Your task to perform on an android device: Clear the cart on newegg.com. Add "sony triple a" to the cart on newegg.com, then select checkout. Image 0: 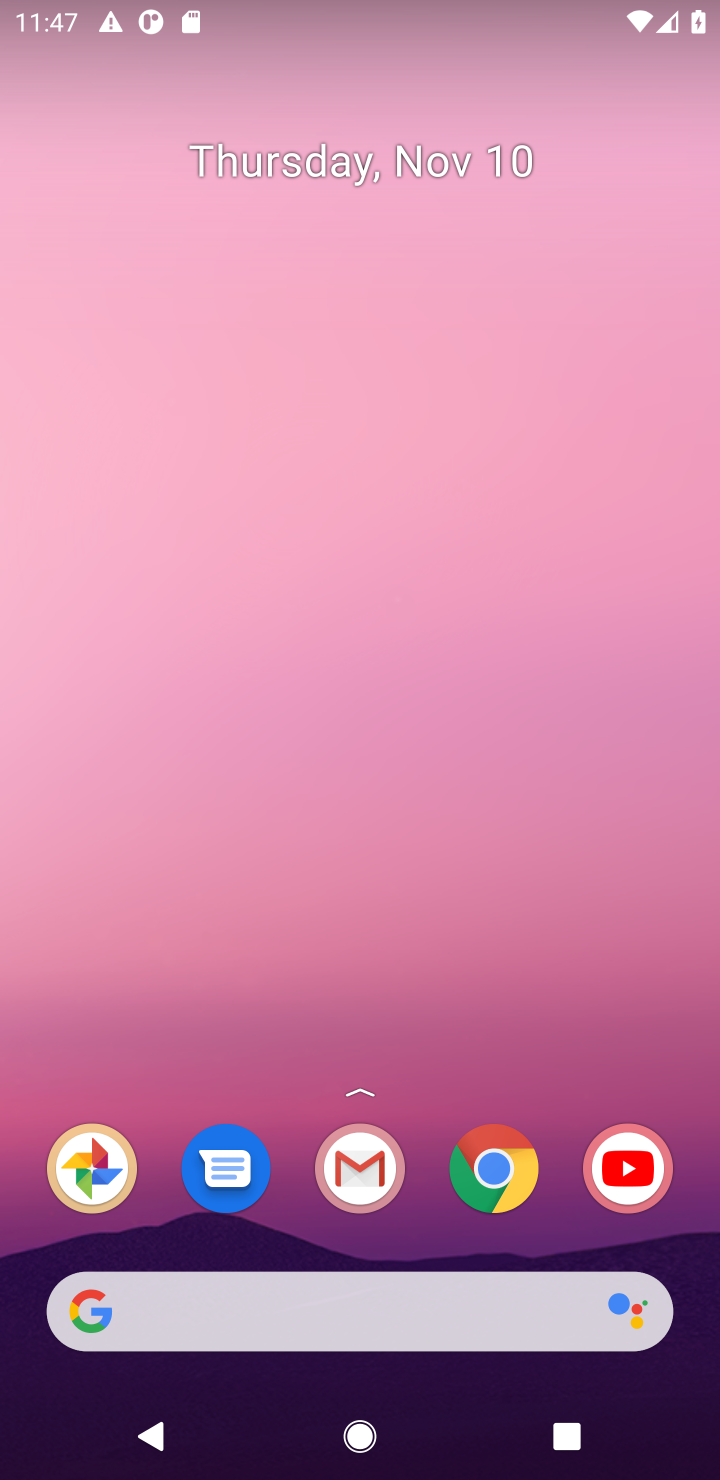
Step 0: click (495, 1162)
Your task to perform on an android device: Clear the cart on newegg.com. Add "sony triple a" to the cart on newegg.com, then select checkout. Image 1: 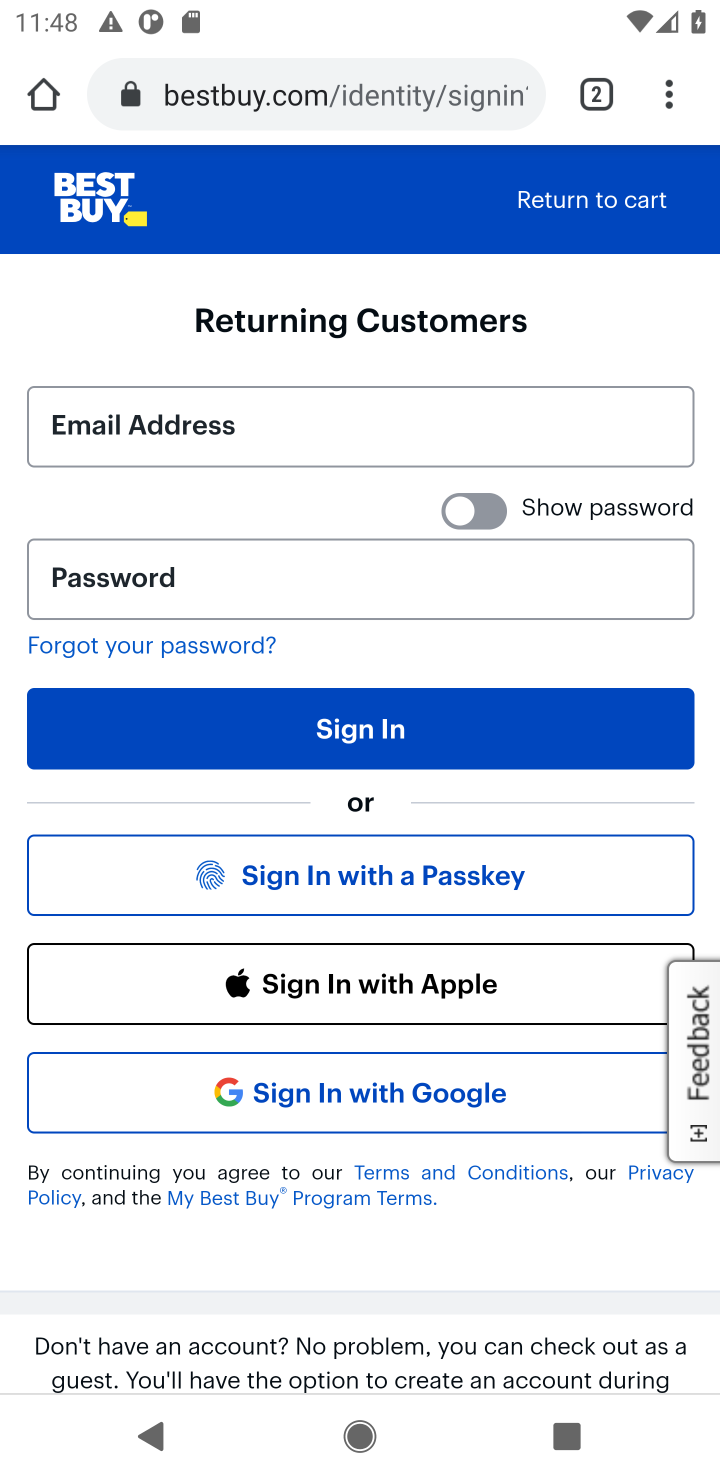
Step 1: click (349, 96)
Your task to perform on an android device: Clear the cart on newegg.com. Add "sony triple a" to the cart on newegg.com, then select checkout. Image 2: 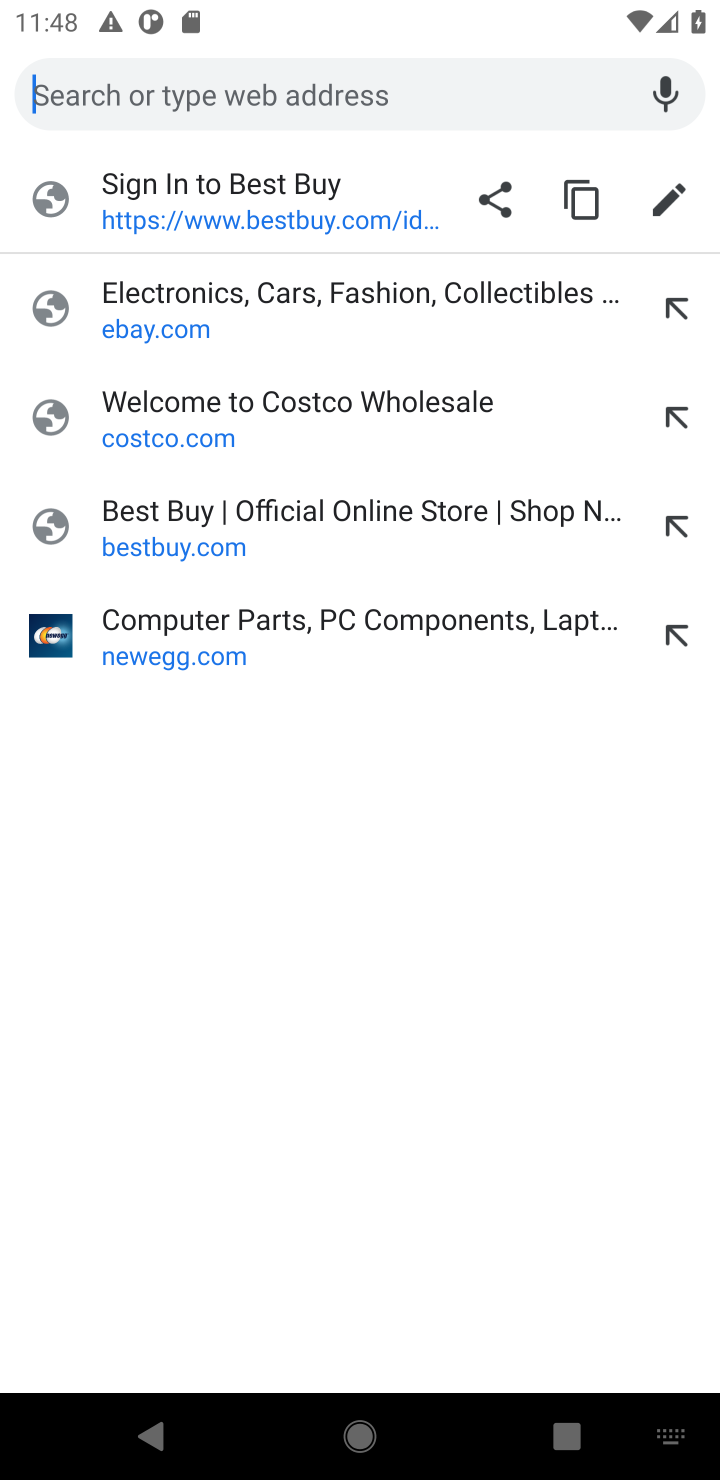
Step 2: click (140, 649)
Your task to perform on an android device: Clear the cart on newegg.com. Add "sony triple a" to the cart on newegg.com, then select checkout. Image 3: 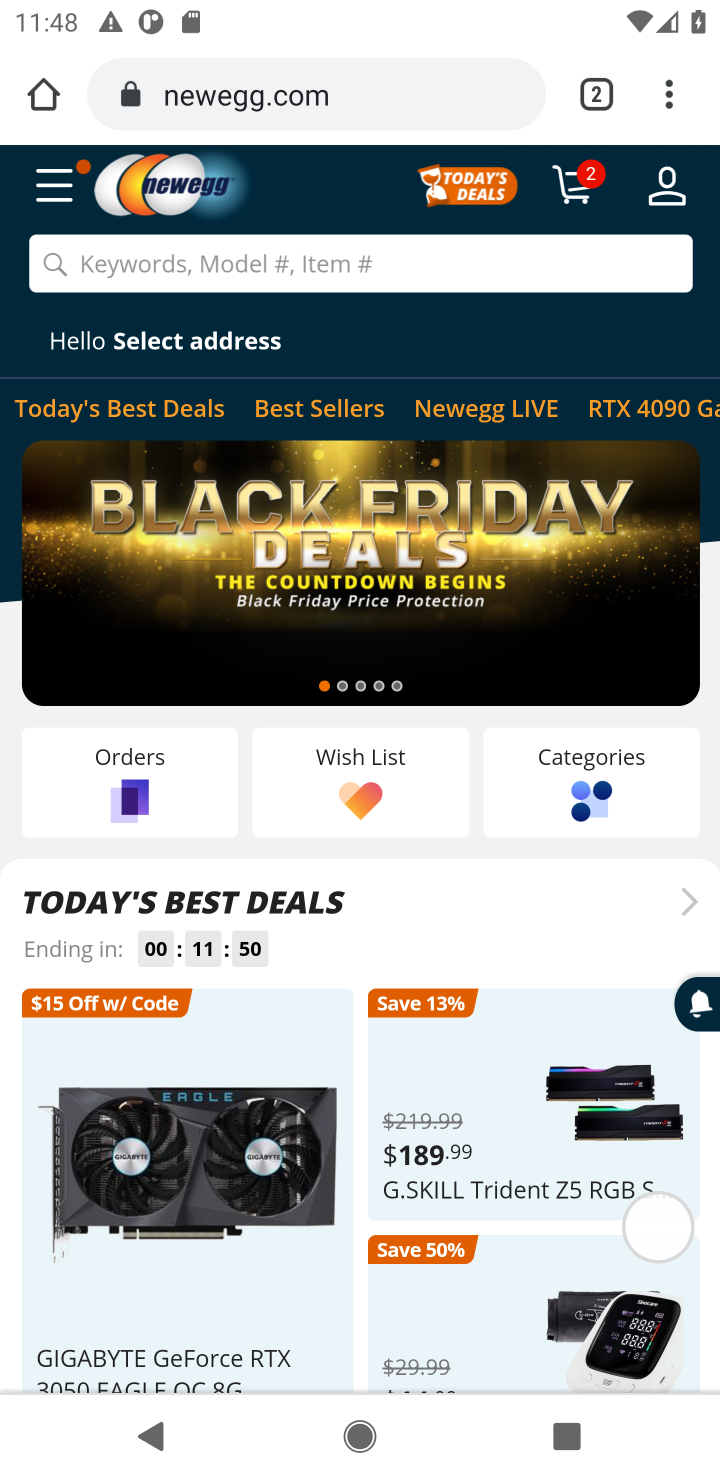
Step 3: click (574, 204)
Your task to perform on an android device: Clear the cart on newegg.com. Add "sony triple a" to the cart on newegg.com, then select checkout. Image 4: 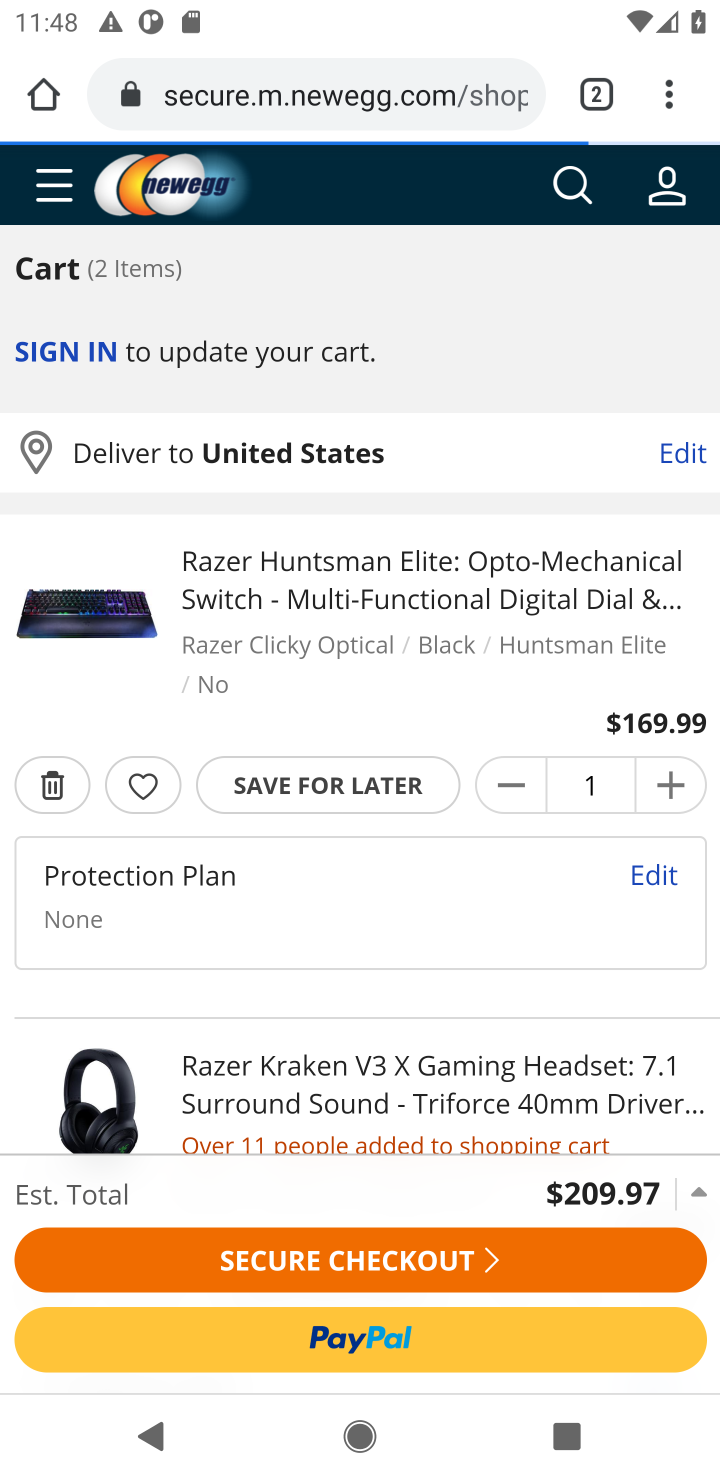
Step 4: click (50, 773)
Your task to perform on an android device: Clear the cart on newegg.com. Add "sony triple a" to the cart on newegg.com, then select checkout. Image 5: 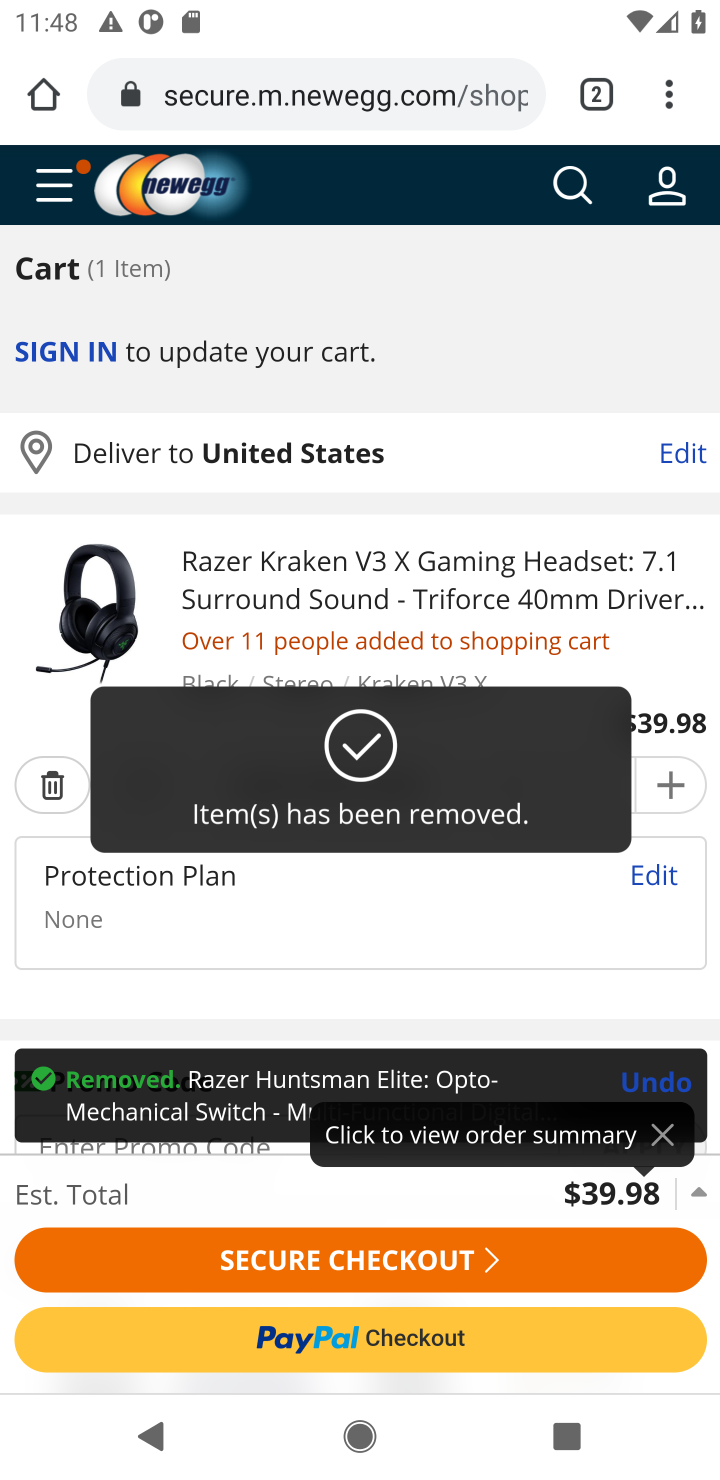
Step 5: click (50, 773)
Your task to perform on an android device: Clear the cart on newegg.com. Add "sony triple a" to the cart on newegg.com, then select checkout. Image 6: 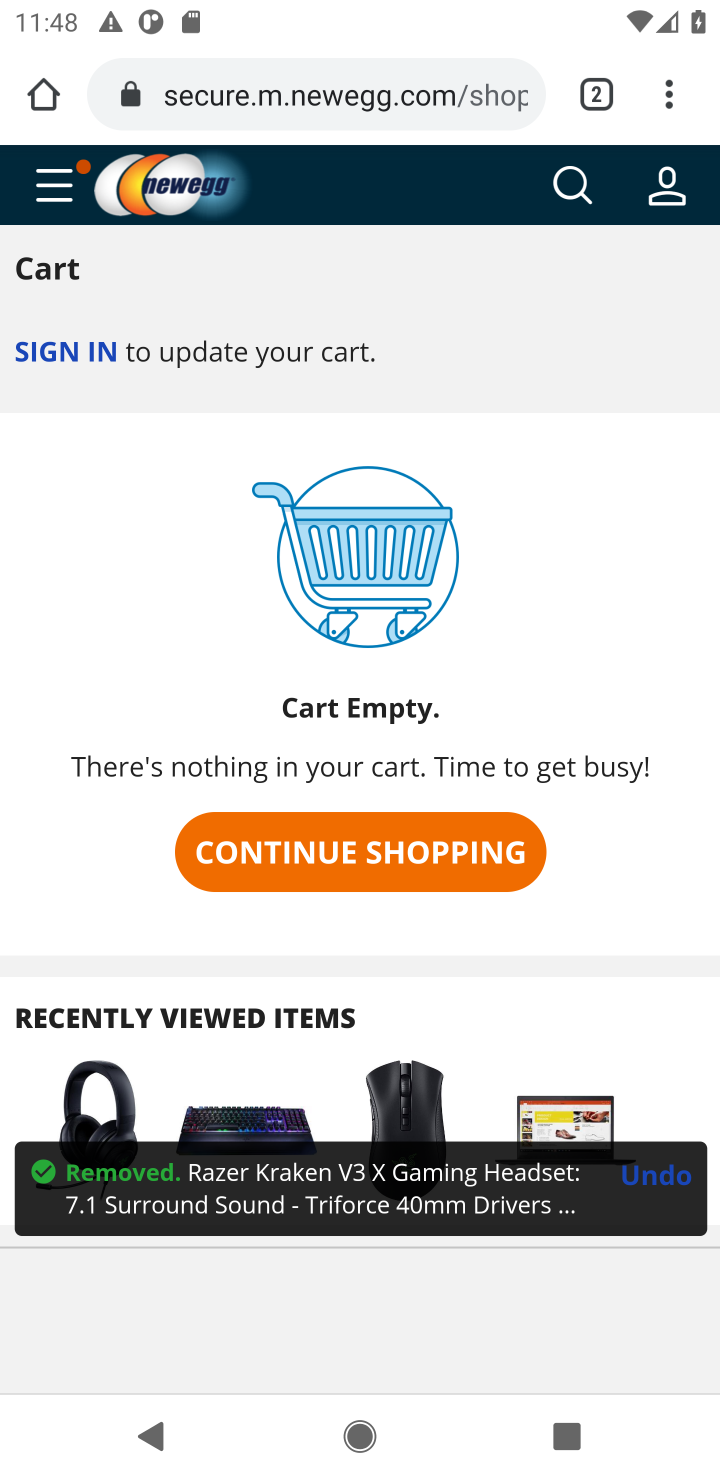
Step 6: click (311, 845)
Your task to perform on an android device: Clear the cart on newegg.com. Add "sony triple a" to the cart on newegg.com, then select checkout. Image 7: 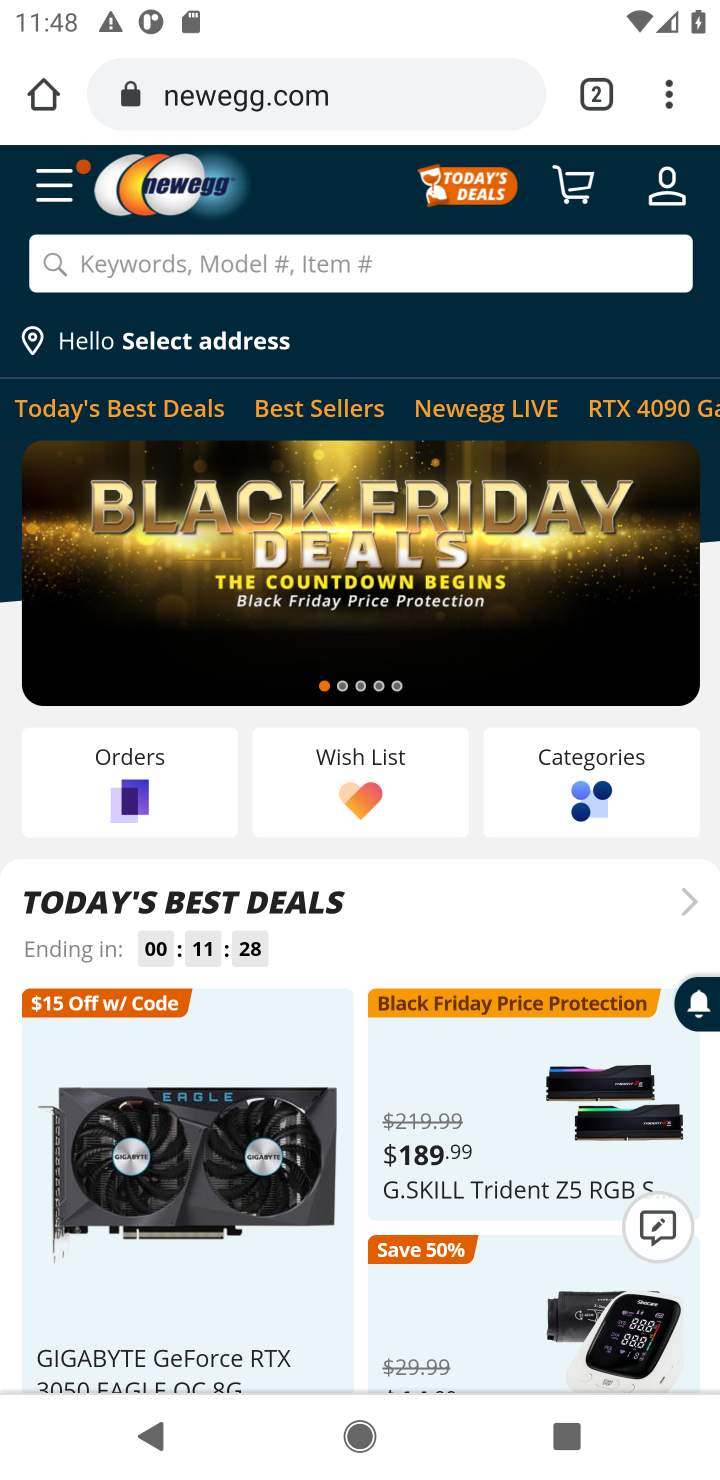
Step 7: click (274, 274)
Your task to perform on an android device: Clear the cart on newegg.com. Add "sony triple a" to the cart on newegg.com, then select checkout. Image 8: 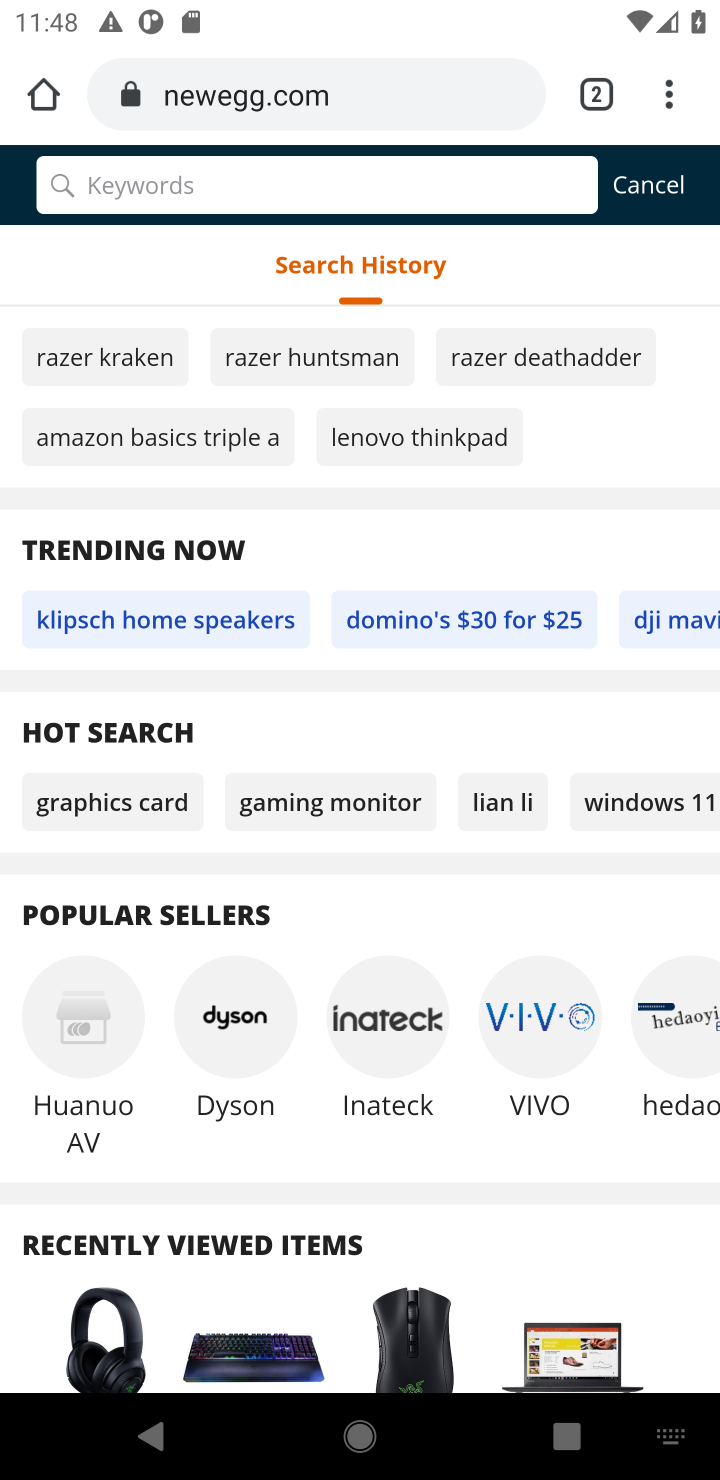
Step 8: type "sony triple a"
Your task to perform on an android device: Clear the cart on newegg.com. Add "sony triple a" to the cart on newegg.com, then select checkout. Image 9: 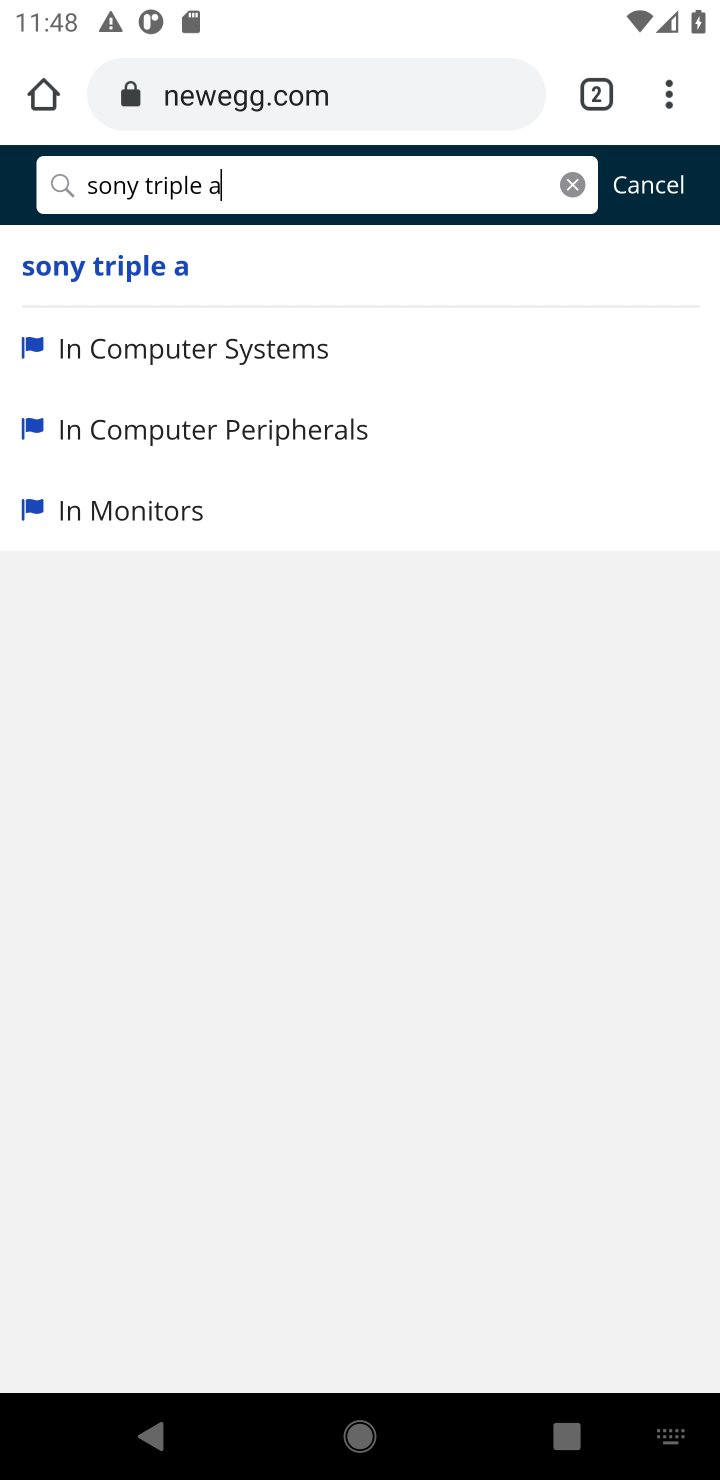
Step 9: click (122, 275)
Your task to perform on an android device: Clear the cart on newegg.com. Add "sony triple a" to the cart on newegg.com, then select checkout. Image 10: 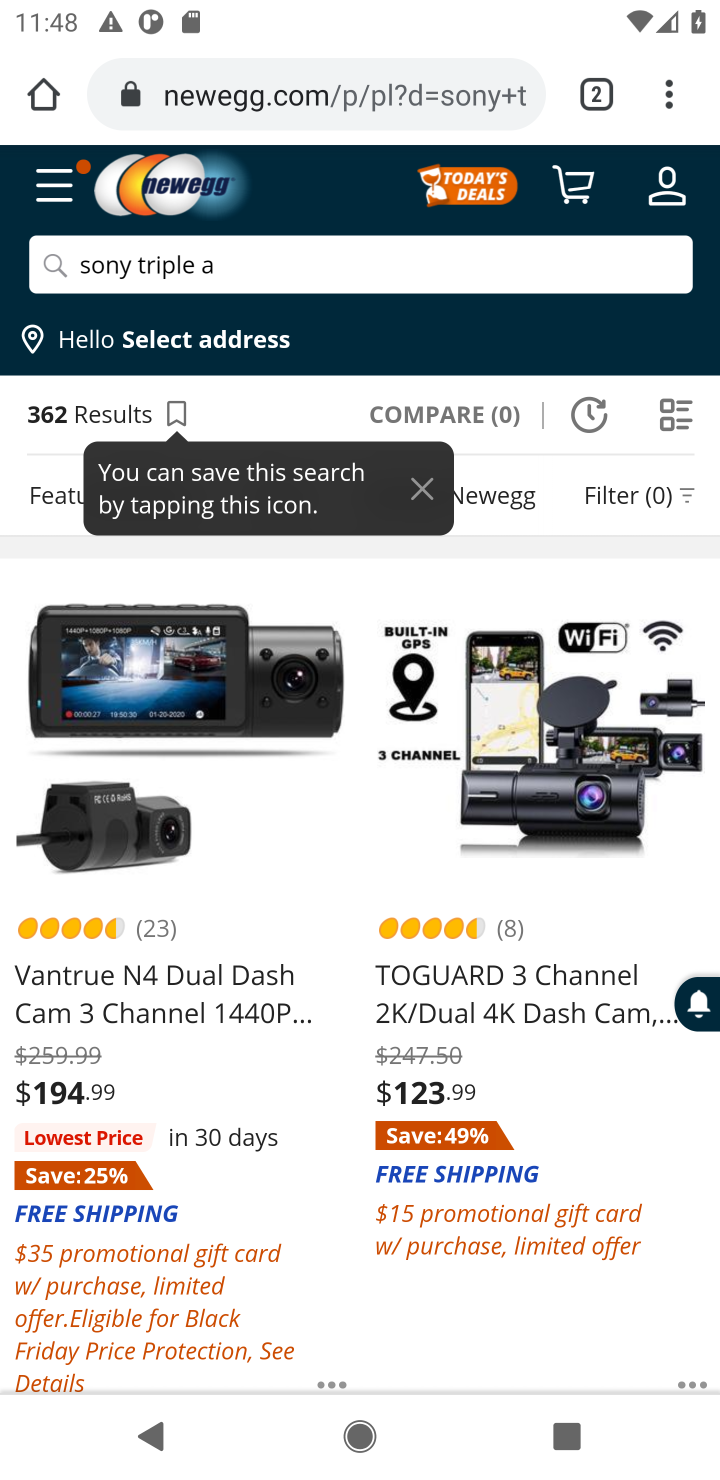
Step 10: task complete